Your task to perform on an android device: Open Maps and search for coffee Image 0: 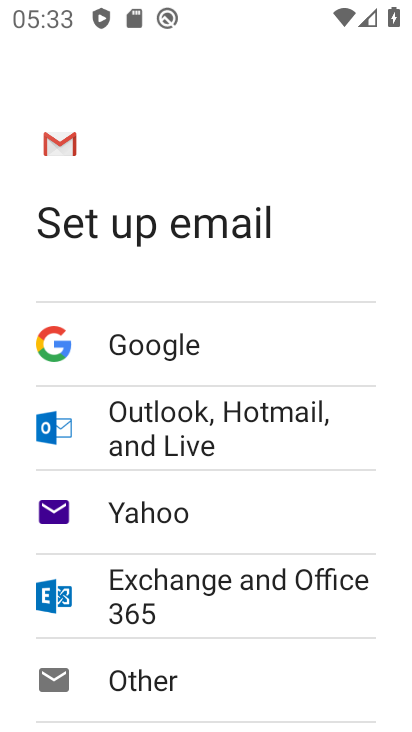
Step 0: press home button
Your task to perform on an android device: Open Maps and search for coffee Image 1: 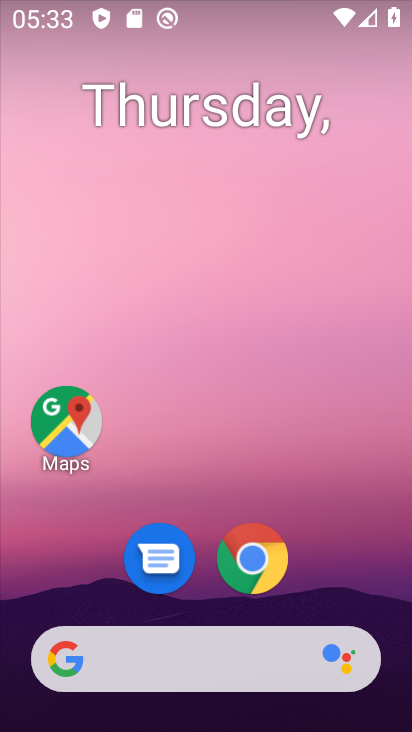
Step 1: click (72, 441)
Your task to perform on an android device: Open Maps and search for coffee Image 2: 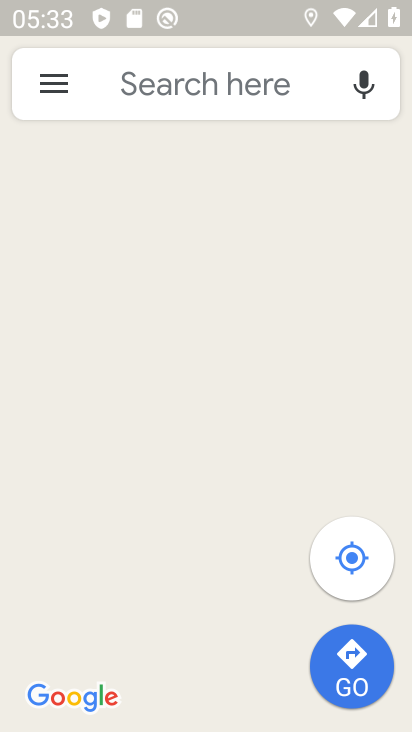
Step 2: click (206, 90)
Your task to perform on an android device: Open Maps and search for coffee Image 3: 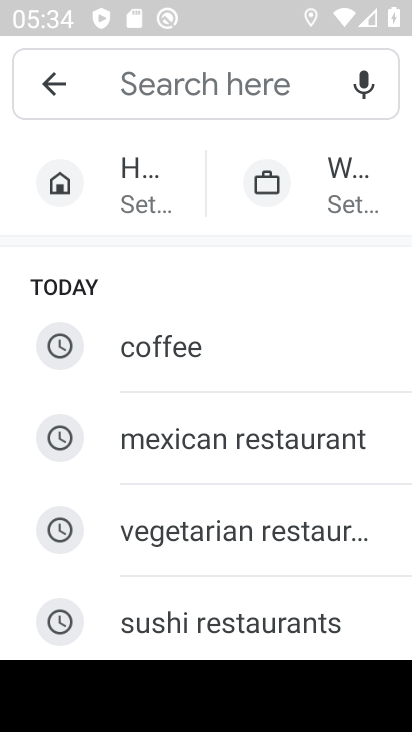
Step 3: click (172, 355)
Your task to perform on an android device: Open Maps and search for coffee Image 4: 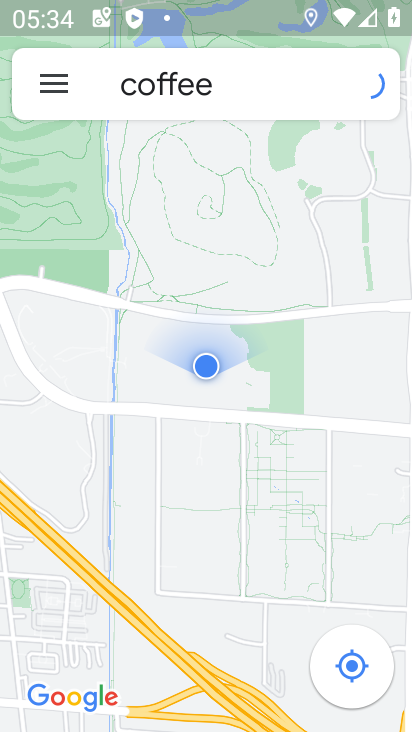
Step 4: task complete